Your task to perform on an android device: allow cookies in the chrome app Image 0: 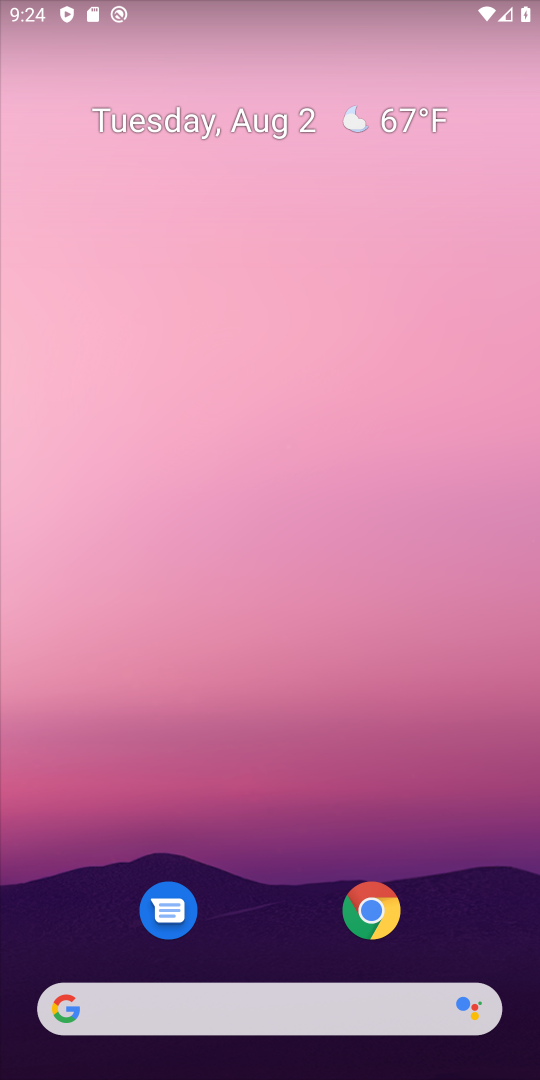
Step 0: drag from (232, 928) to (289, 191)
Your task to perform on an android device: allow cookies in the chrome app Image 1: 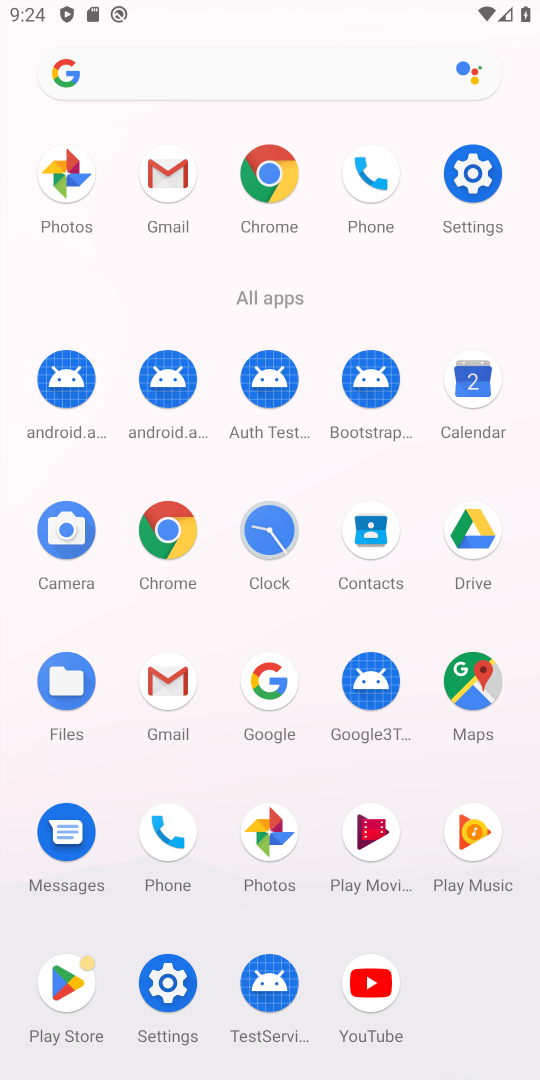
Step 1: click (153, 507)
Your task to perform on an android device: allow cookies in the chrome app Image 2: 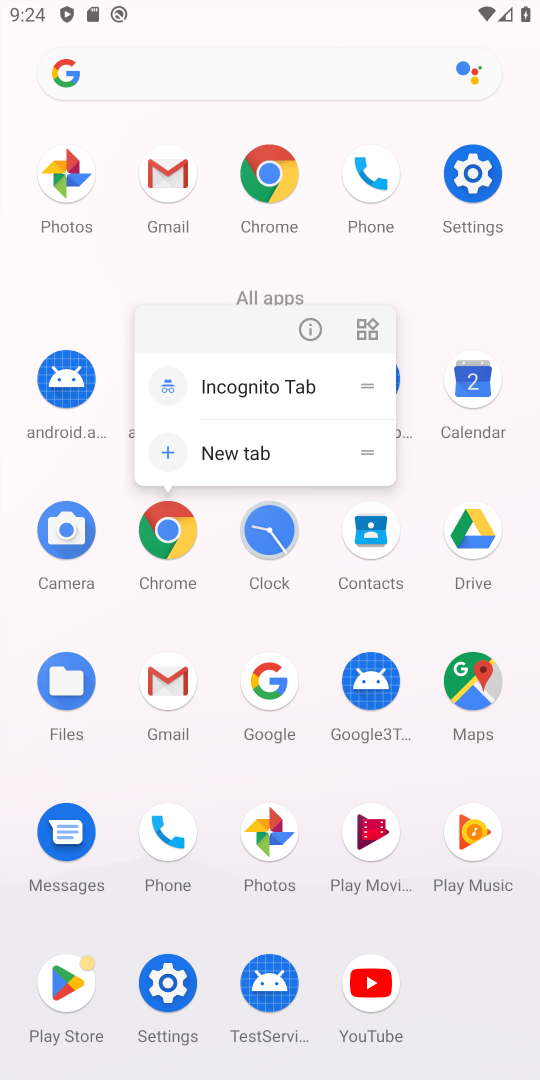
Step 2: click (155, 524)
Your task to perform on an android device: allow cookies in the chrome app Image 3: 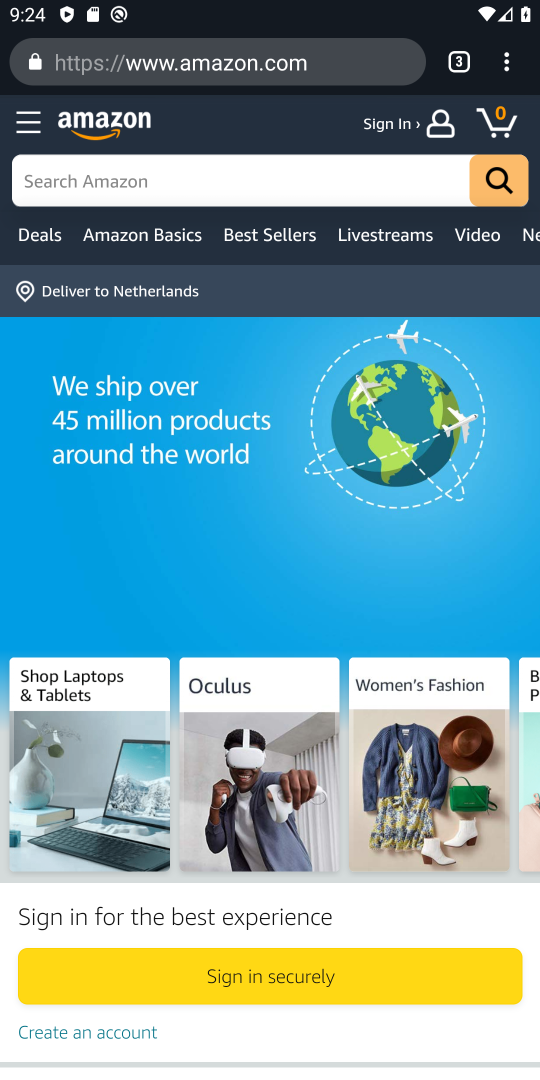
Step 3: click (515, 70)
Your task to perform on an android device: allow cookies in the chrome app Image 4: 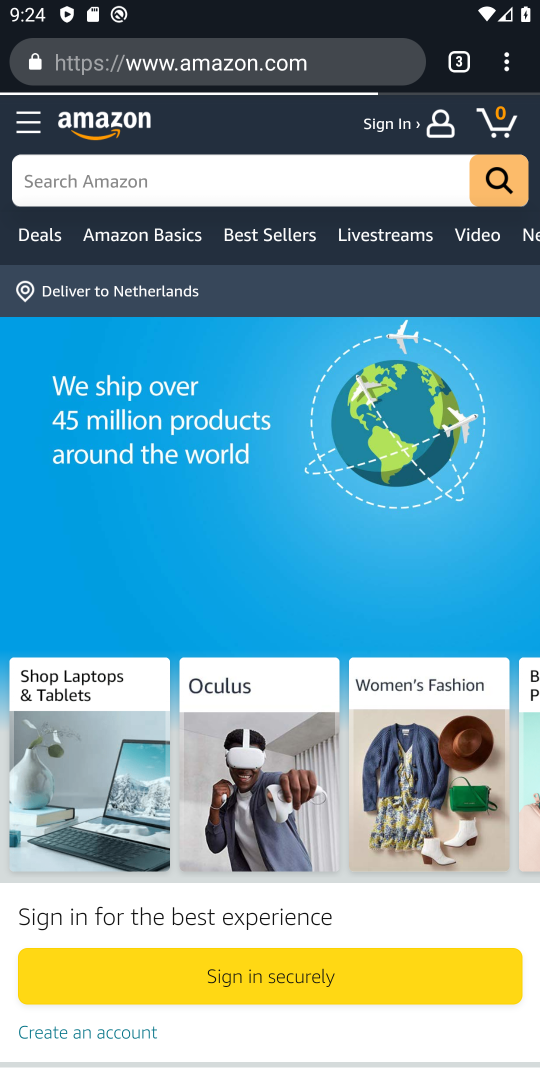
Step 4: click (515, 70)
Your task to perform on an android device: allow cookies in the chrome app Image 5: 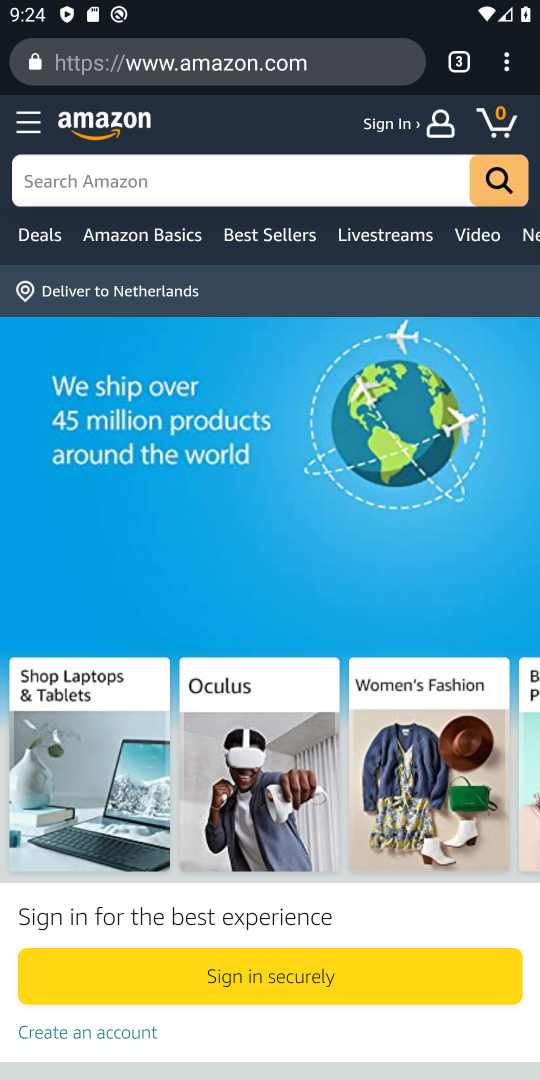
Step 5: click (506, 55)
Your task to perform on an android device: allow cookies in the chrome app Image 6: 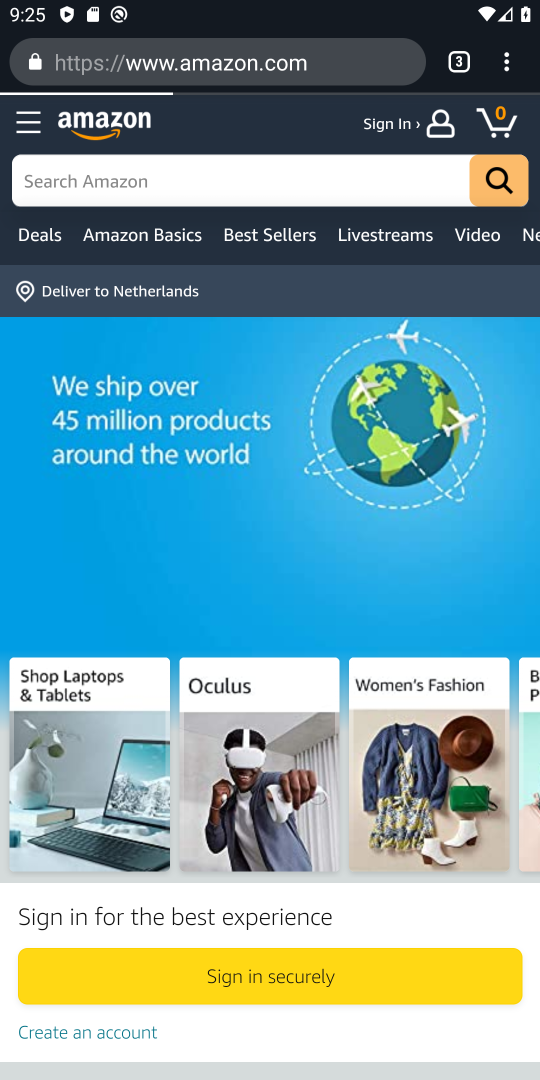
Step 6: click (508, 47)
Your task to perform on an android device: allow cookies in the chrome app Image 7: 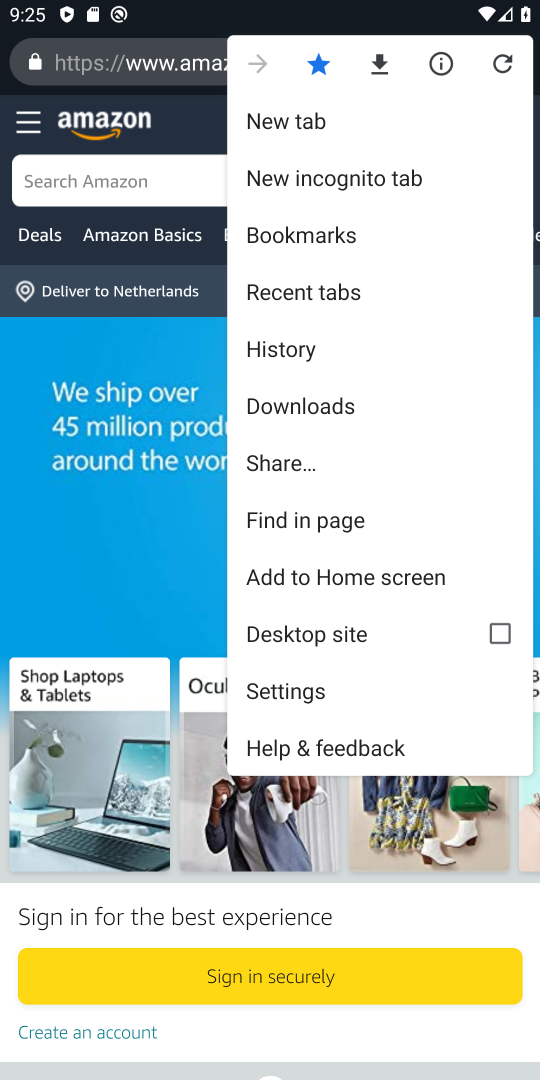
Step 7: click (291, 688)
Your task to perform on an android device: allow cookies in the chrome app Image 8: 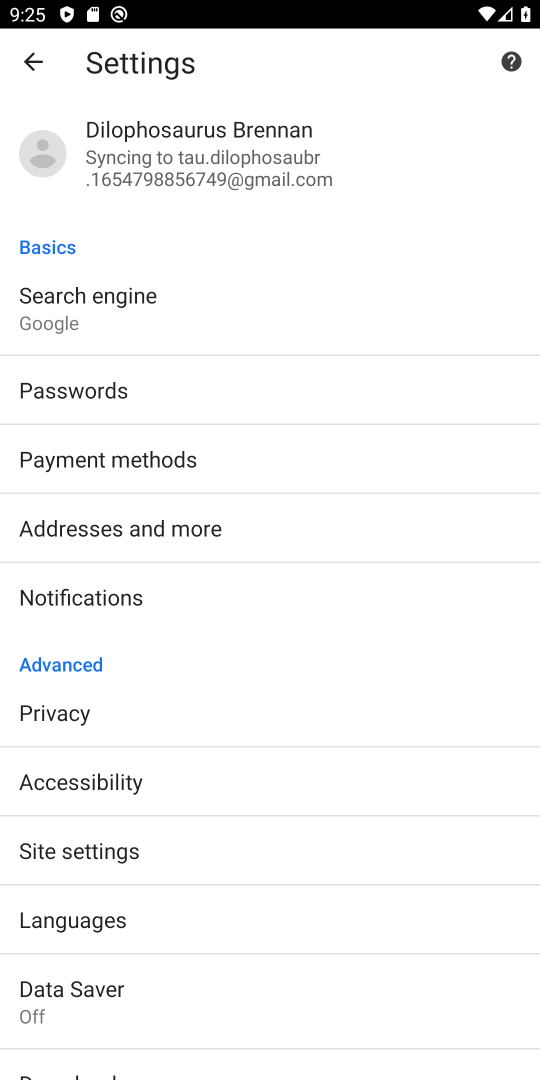
Step 8: click (156, 844)
Your task to perform on an android device: allow cookies in the chrome app Image 9: 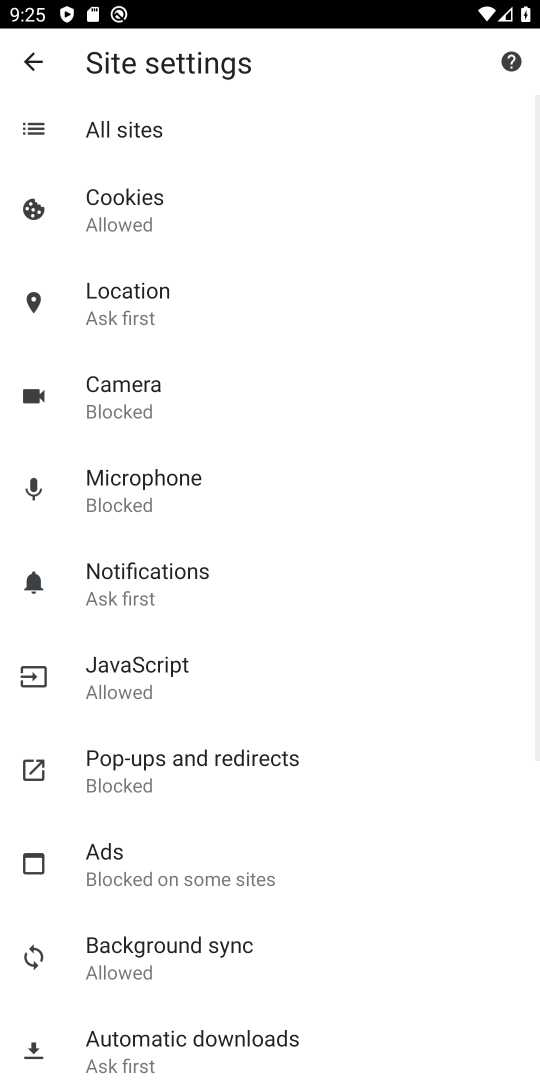
Step 9: click (168, 221)
Your task to perform on an android device: allow cookies in the chrome app Image 10: 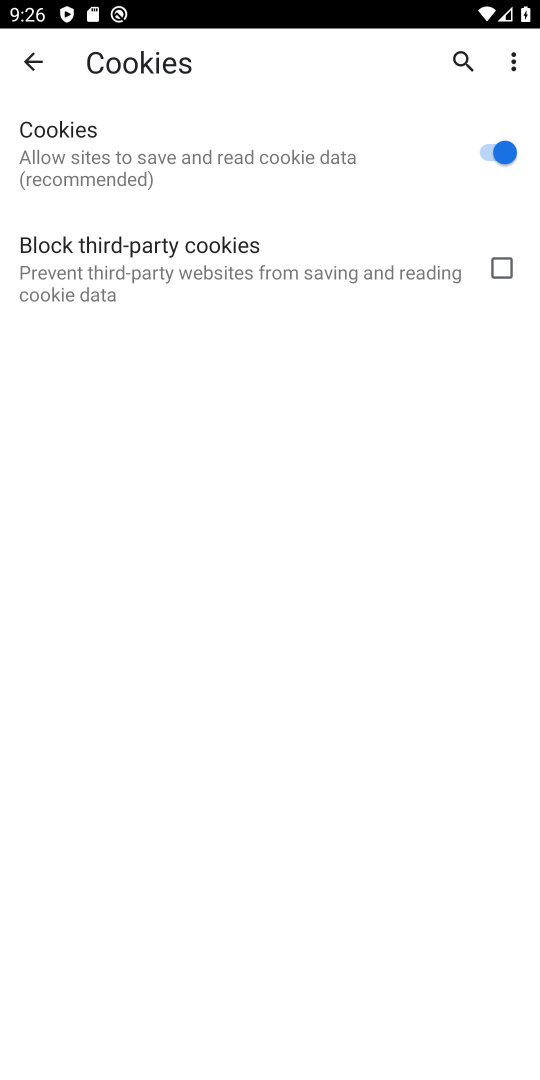
Step 10: task complete